Your task to perform on an android device: Go to sound settings Image 0: 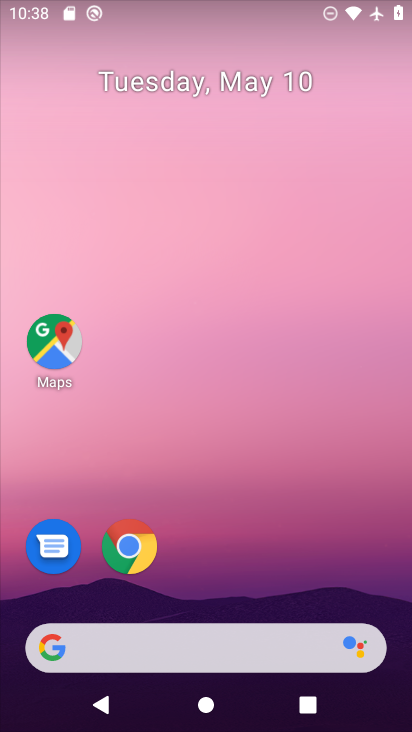
Step 0: drag from (350, 535) to (294, 89)
Your task to perform on an android device: Go to sound settings Image 1: 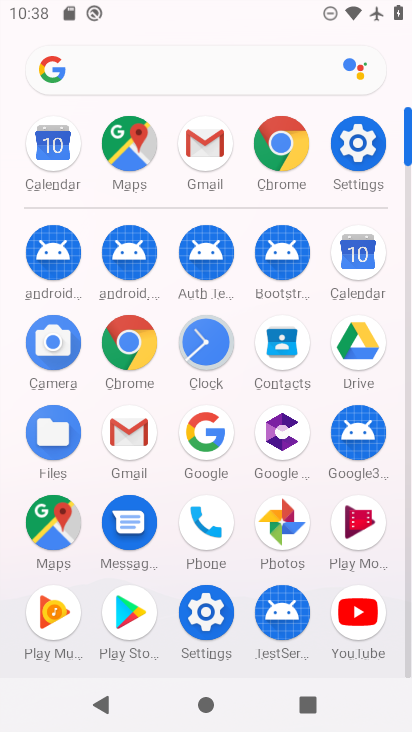
Step 1: click (355, 140)
Your task to perform on an android device: Go to sound settings Image 2: 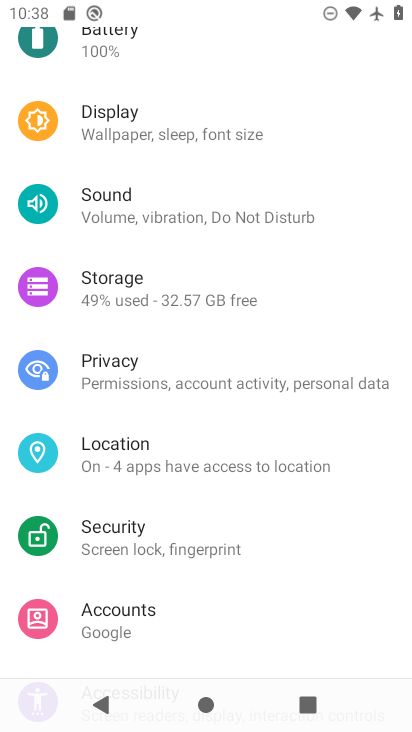
Step 2: click (153, 212)
Your task to perform on an android device: Go to sound settings Image 3: 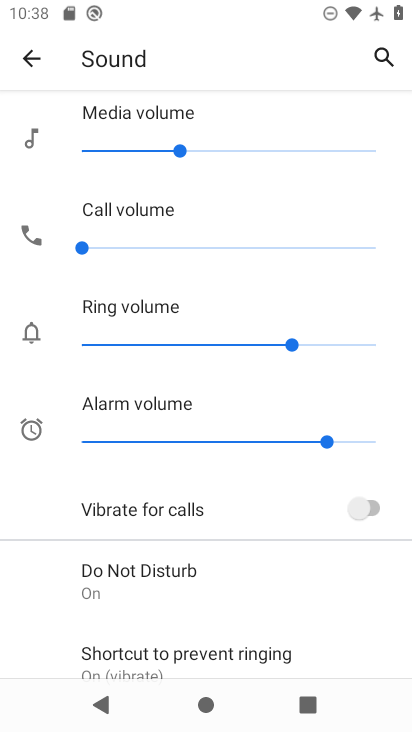
Step 3: task complete